Your task to perform on an android device: set an alarm Image 0: 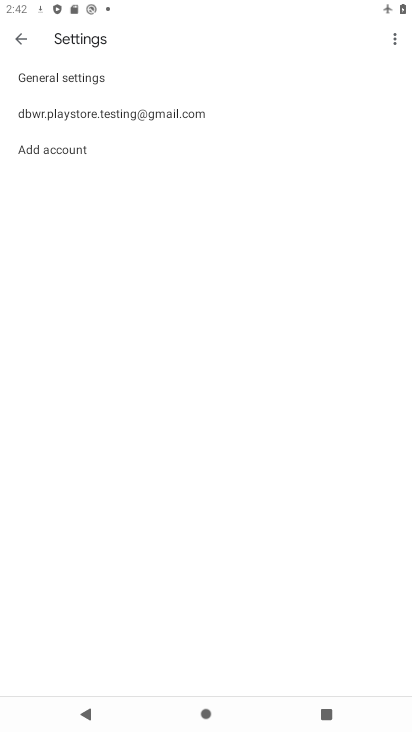
Step 0: press home button
Your task to perform on an android device: set an alarm Image 1: 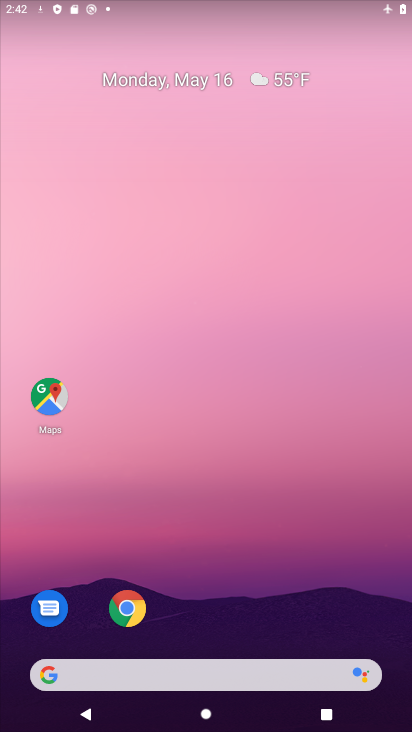
Step 1: drag from (208, 632) to (208, 149)
Your task to perform on an android device: set an alarm Image 2: 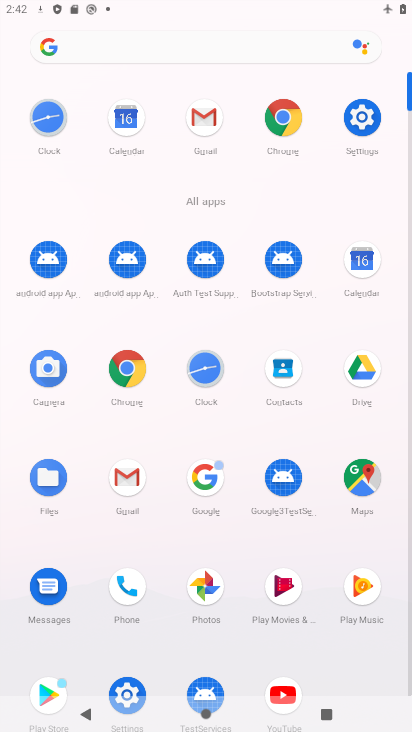
Step 2: drag from (151, 513) to (158, 382)
Your task to perform on an android device: set an alarm Image 3: 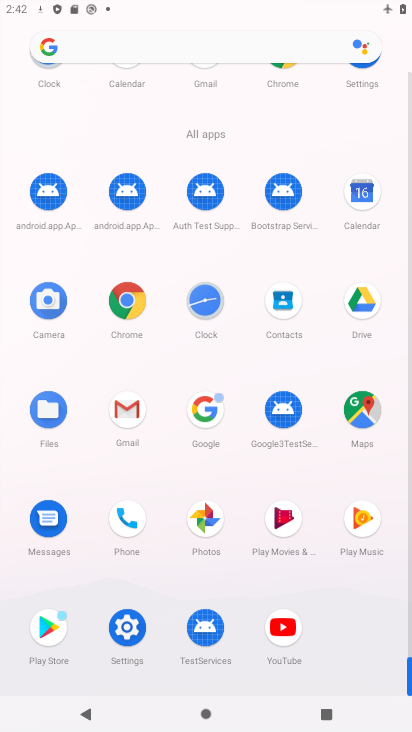
Step 3: click (197, 310)
Your task to perform on an android device: set an alarm Image 4: 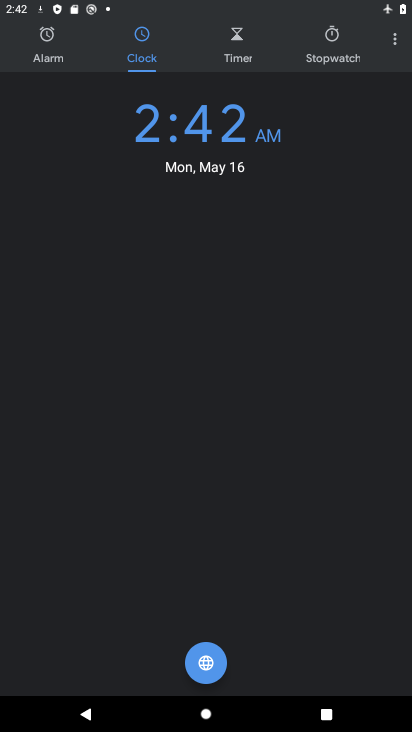
Step 4: click (55, 43)
Your task to perform on an android device: set an alarm Image 5: 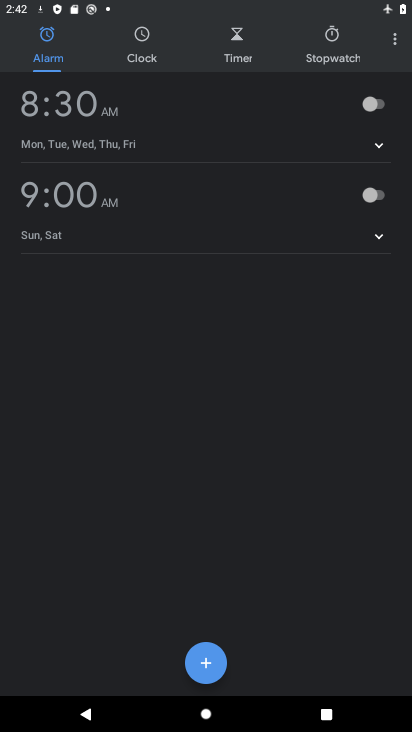
Step 5: click (382, 105)
Your task to perform on an android device: set an alarm Image 6: 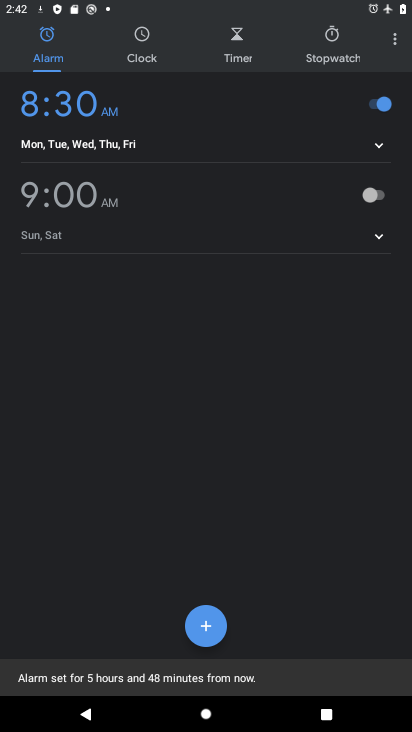
Step 6: task complete